Your task to perform on an android device: Search for sushi restaurants on Maps Image 0: 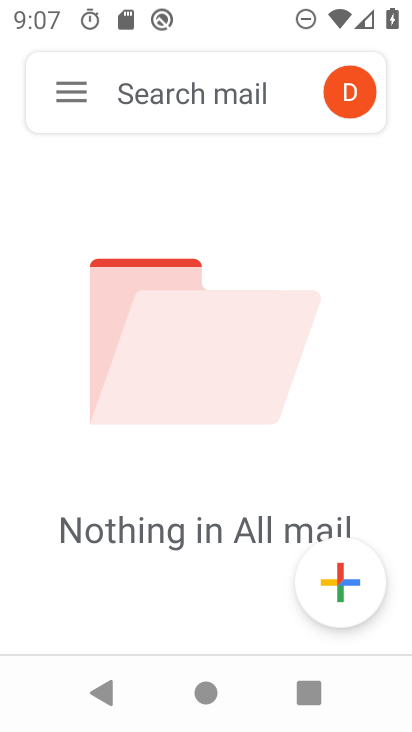
Step 0: press home button
Your task to perform on an android device: Search for sushi restaurants on Maps Image 1: 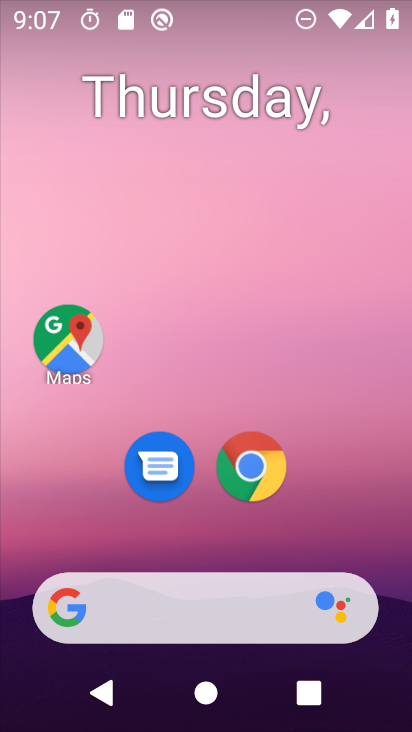
Step 1: click (72, 345)
Your task to perform on an android device: Search for sushi restaurants on Maps Image 2: 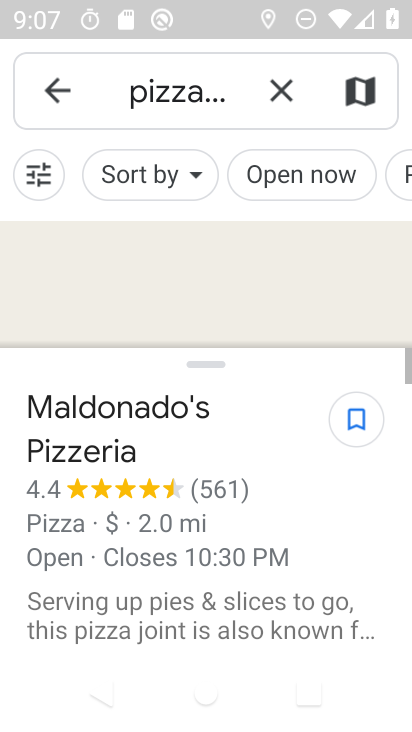
Step 2: click (279, 96)
Your task to perform on an android device: Search for sushi restaurants on Maps Image 3: 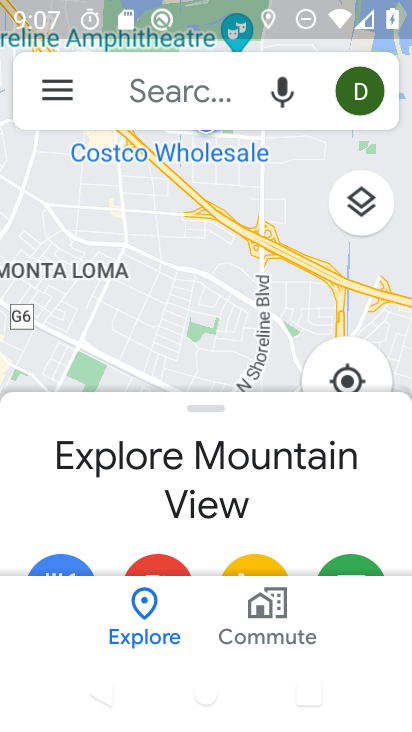
Step 3: click (159, 96)
Your task to perform on an android device: Search for sushi restaurants on Maps Image 4: 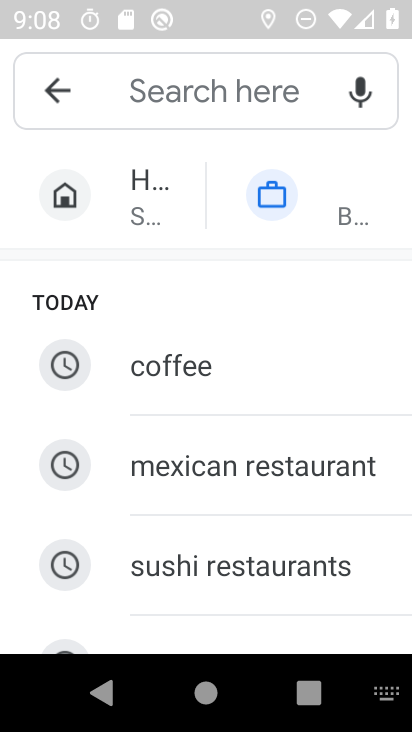
Step 4: click (230, 572)
Your task to perform on an android device: Search for sushi restaurants on Maps Image 5: 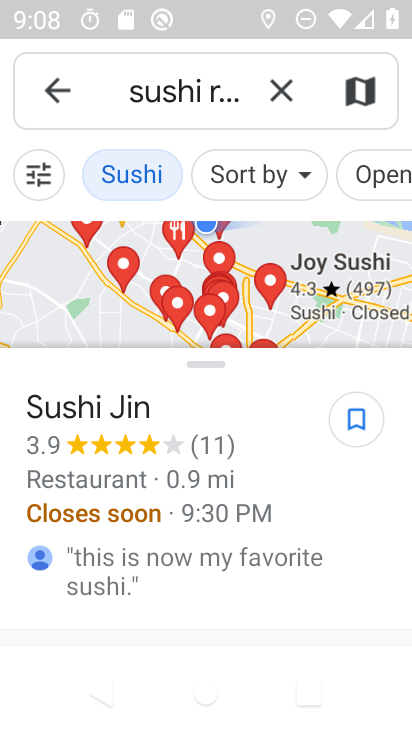
Step 5: task complete